Your task to perform on an android device: Open accessibility settings Image 0: 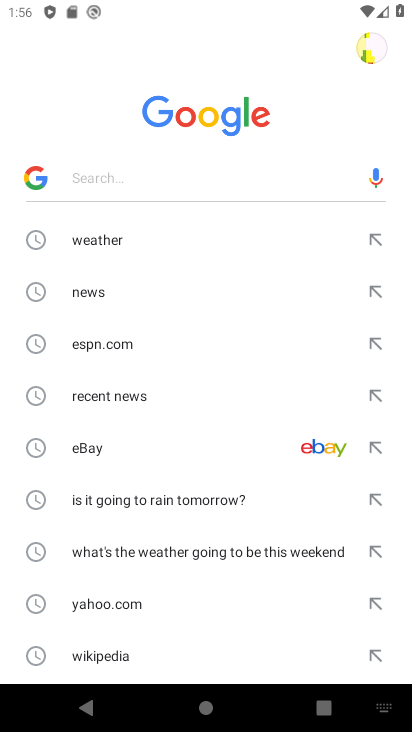
Step 0: press home button
Your task to perform on an android device: Open accessibility settings Image 1: 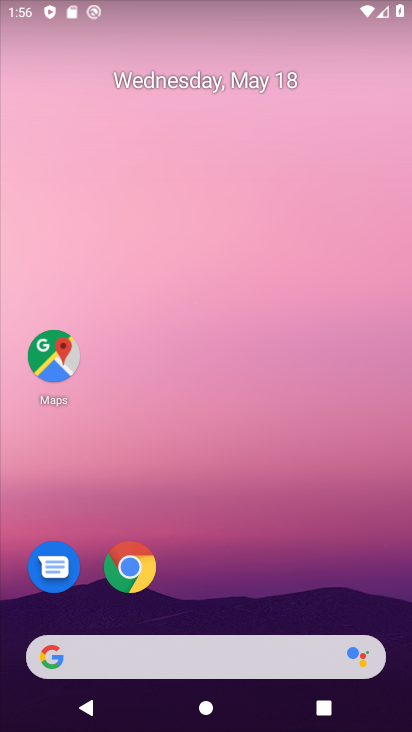
Step 1: drag from (262, 554) to (260, 191)
Your task to perform on an android device: Open accessibility settings Image 2: 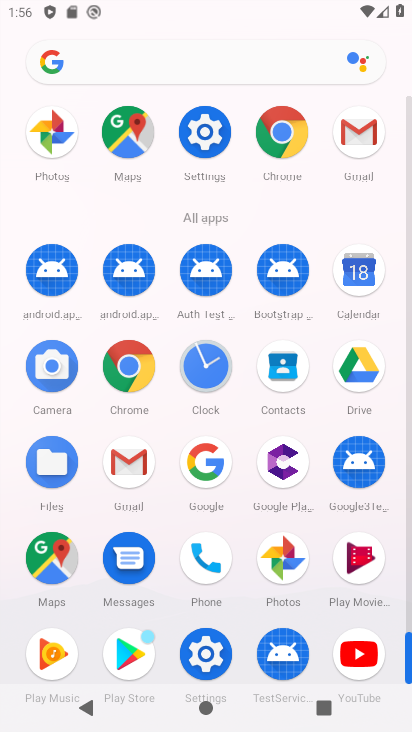
Step 2: click (196, 129)
Your task to perform on an android device: Open accessibility settings Image 3: 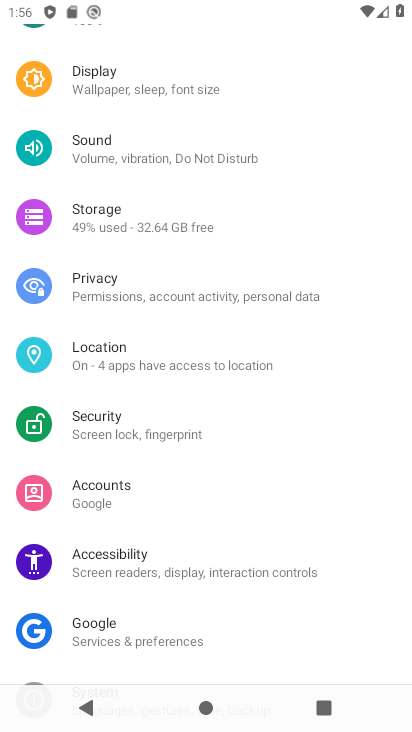
Step 3: click (165, 556)
Your task to perform on an android device: Open accessibility settings Image 4: 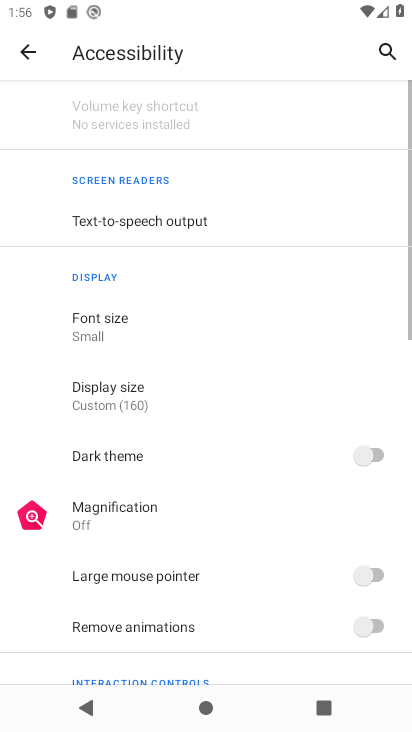
Step 4: task complete